Your task to perform on an android device: change keyboard looks Image 0: 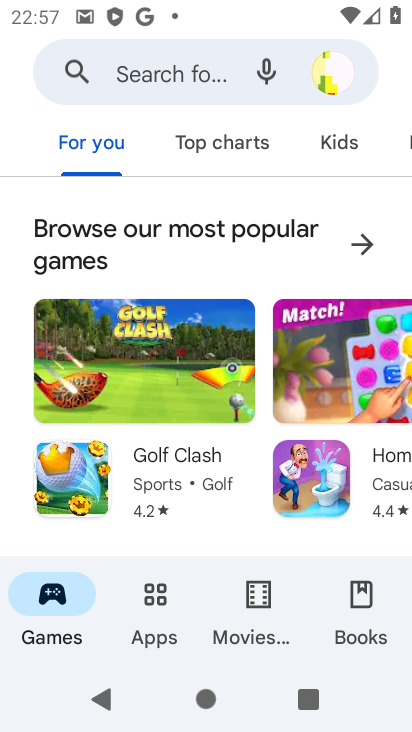
Step 0: press home button
Your task to perform on an android device: change keyboard looks Image 1: 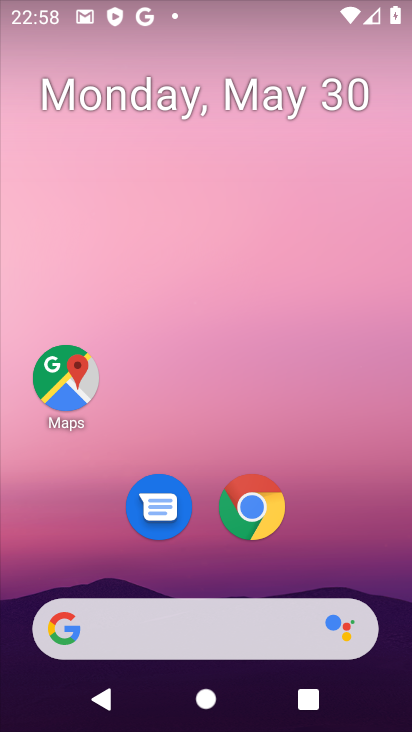
Step 1: drag from (359, 545) to (359, 234)
Your task to perform on an android device: change keyboard looks Image 2: 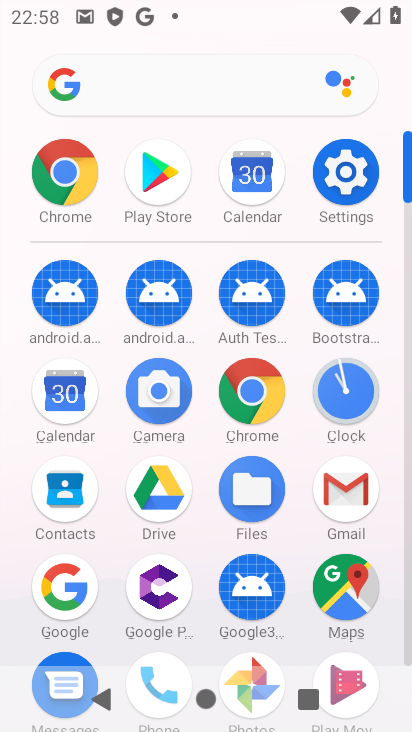
Step 2: click (354, 182)
Your task to perform on an android device: change keyboard looks Image 3: 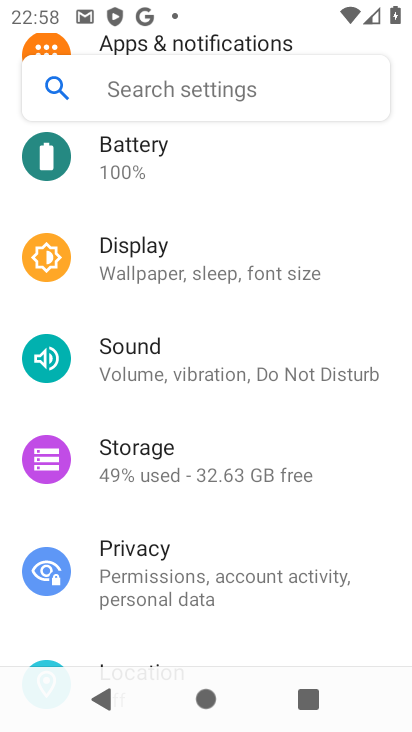
Step 3: drag from (374, 251) to (374, 388)
Your task to perform on an android device: change keyboard looks Image 4: 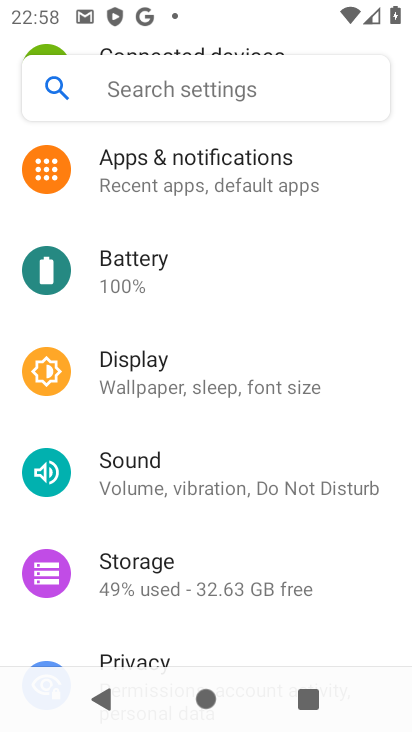
Step 4: drag from (355, 180) to (365, 346)
Your task to perform on an android device: change keyboard looks Image 5: 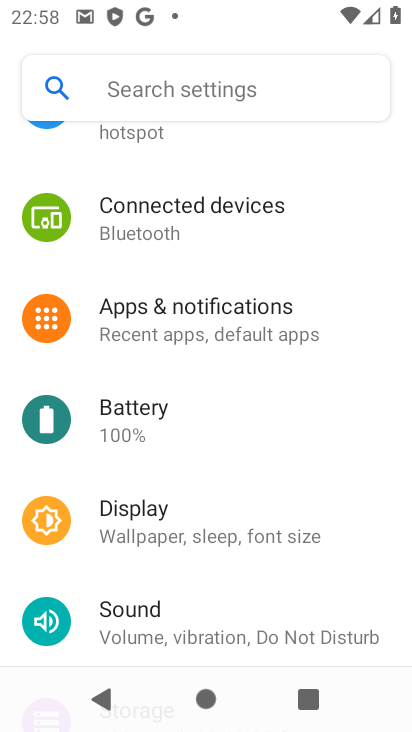
Step 5: drag from (357, 227) to (358, 389)
Your task to perform on an android device: change keyboard looks Image 6: 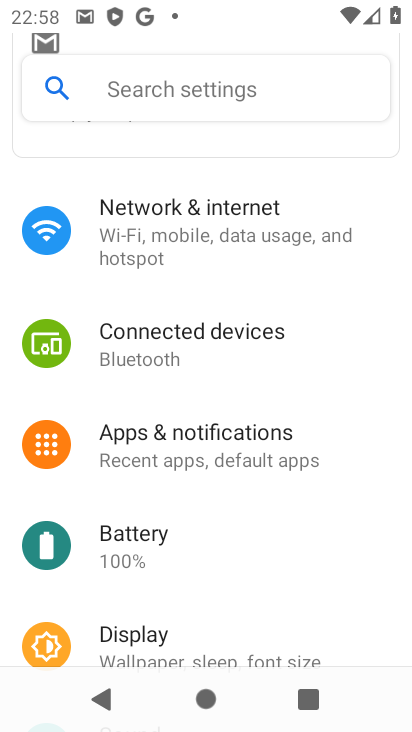
Step 6: drag from (352, 473) to (348, 230)
Your task to perform on an android device: change keyboard looks Image 7: 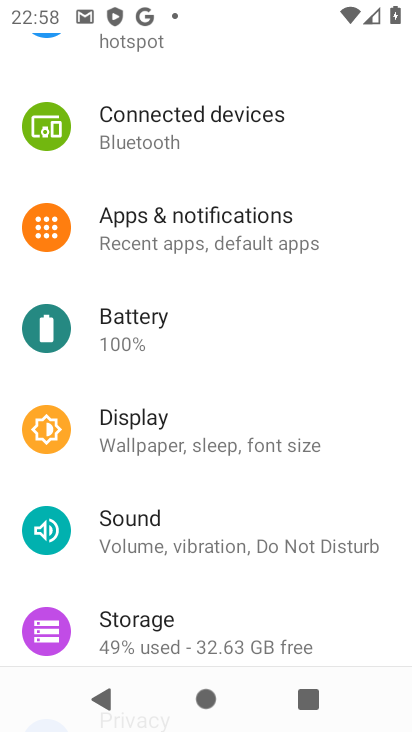
Step 7: drag from (330, 558) to (347, 407)
Your task to perform on an android device: change keyboard looks Image 8: 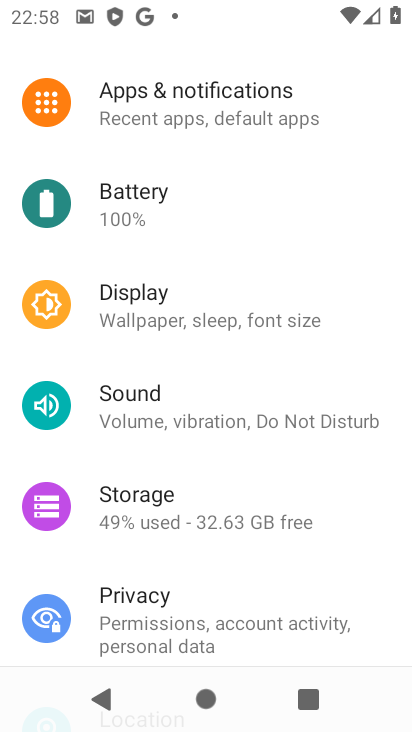
Step 8: drag from (345, 564) to (347, 400)
Your task to perform on an android device: change keyboard looks Image 9: 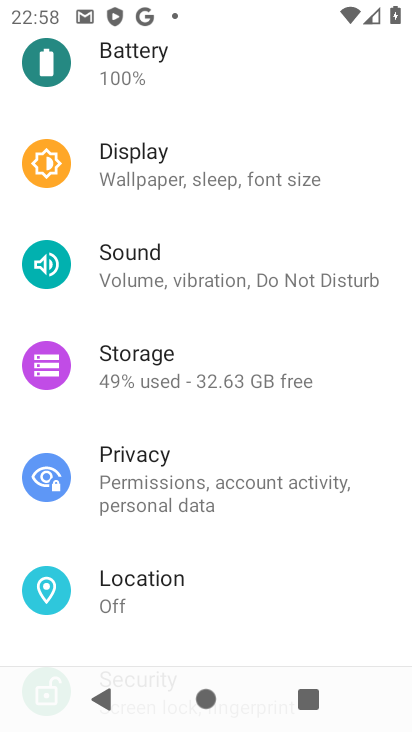
Step 9: drag from (325, 554) to (333, 362)
Your task to perform on an android device: change keyboard looks Image 10: 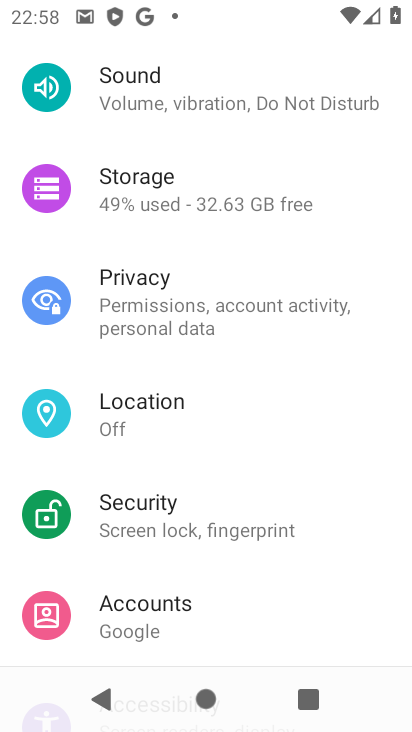
Step 10: drag from (336, 541) to (337, 410)
Your task to perform on an android device: change keyboard looks Image 11: 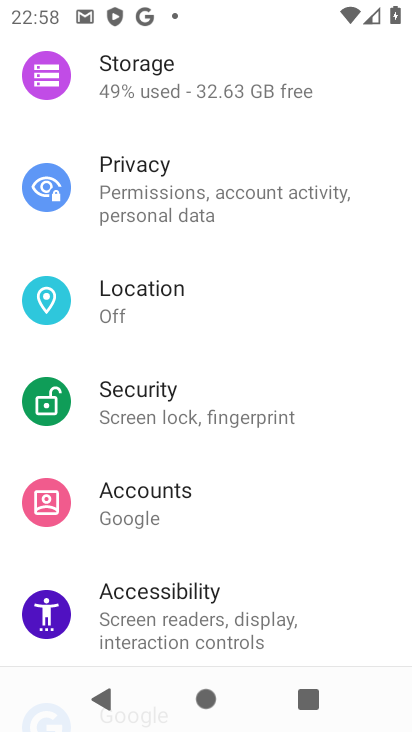
Step 11: drag from (349, 569) to (360, 314)
Your task to perform on an android device: change keyboard looks Image 12: 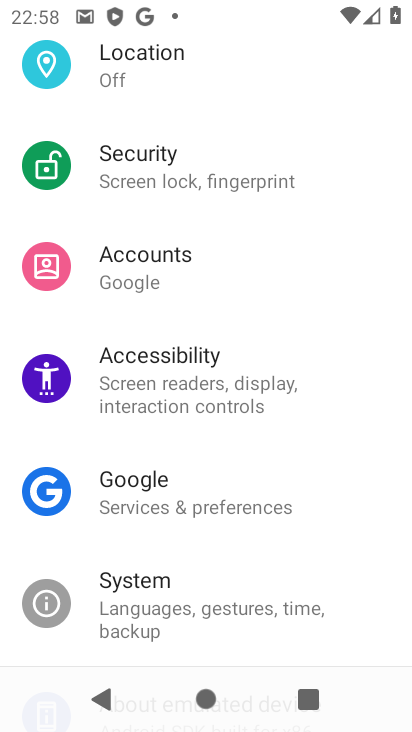
Step 12: drag from (339, 571) to (349, 409)
Your task to perform on an android device: change keyboard looks Image 13: 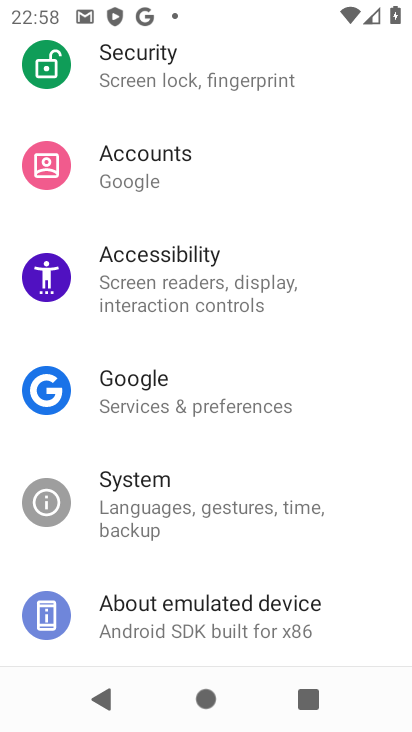
Step 13: click (291, 506)
Your task to perform on an android device: change keyboard looks Image 14: 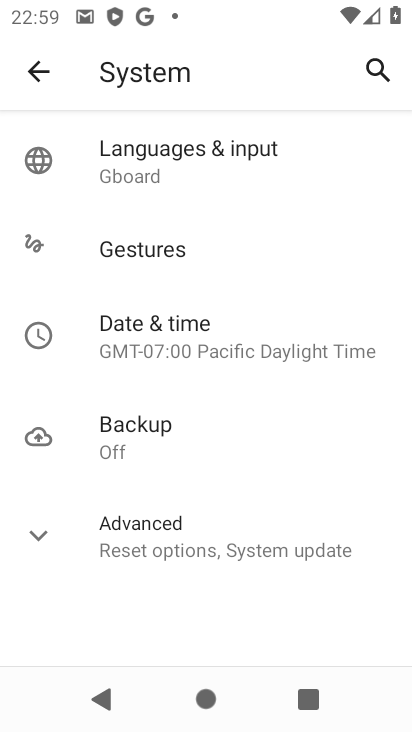
Step 14: click (167, 158)
Your task to perform on an android device: change keyboard looks Image 15: 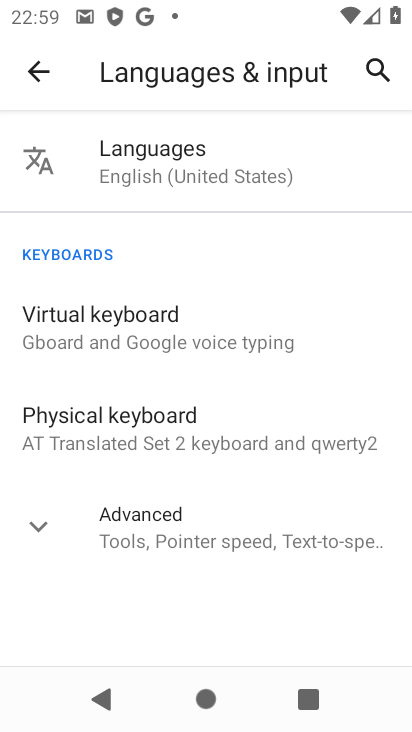
Step 15: click (176, 333)
Your task to perform on an android device: change keyboard looks Image 16: 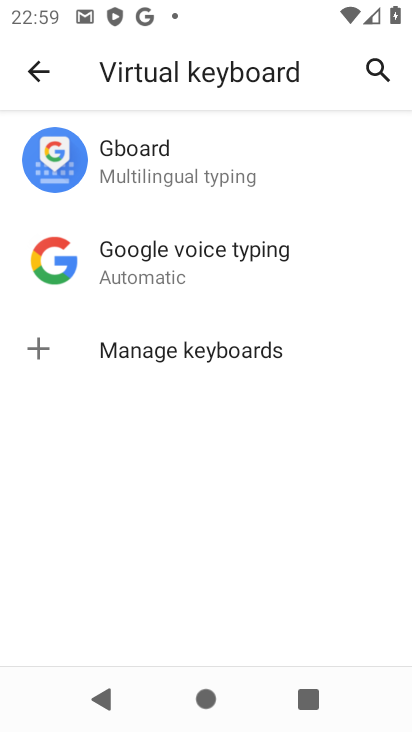
Step 16: click (188, 186)
Your task to perform on an android device: change keyboard looks Image 17: 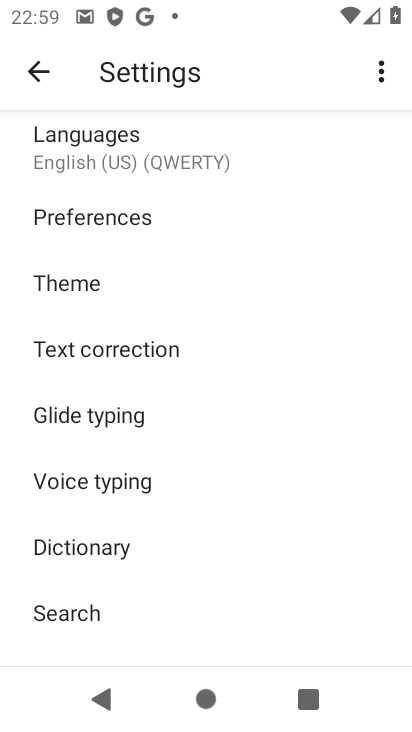
Step 17: drag from (309, 333) to (300, 424)
Your task to perform on an android device: change keyboard looks Image 18: 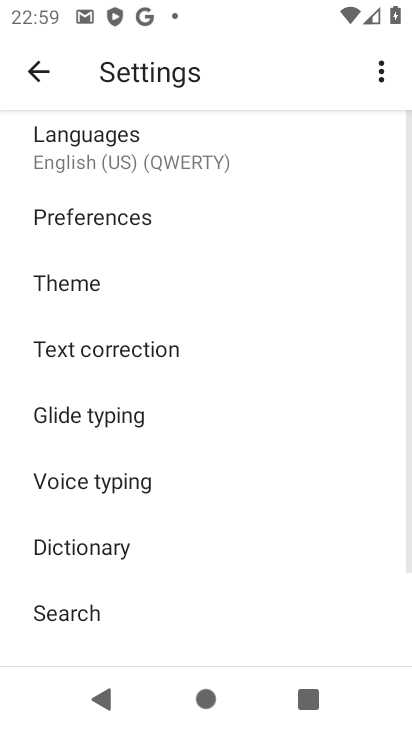
Step 18: click (91, 280)
Your task to perform on an android device: change keyboard looks Image 19: 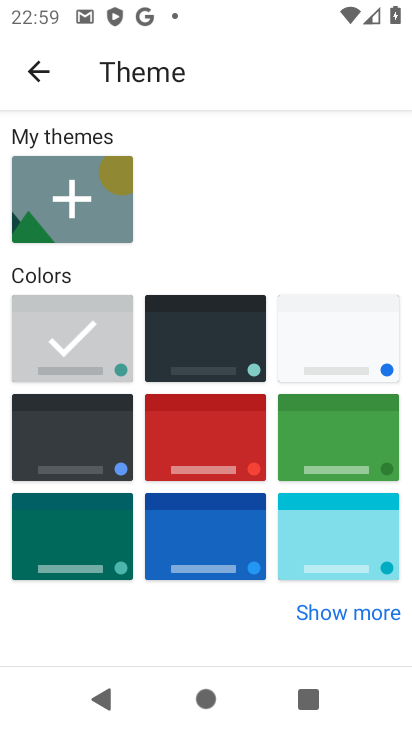
Step 19: click (219, 445)
Your task to perform on an android device: change keyboard looks Image 20: 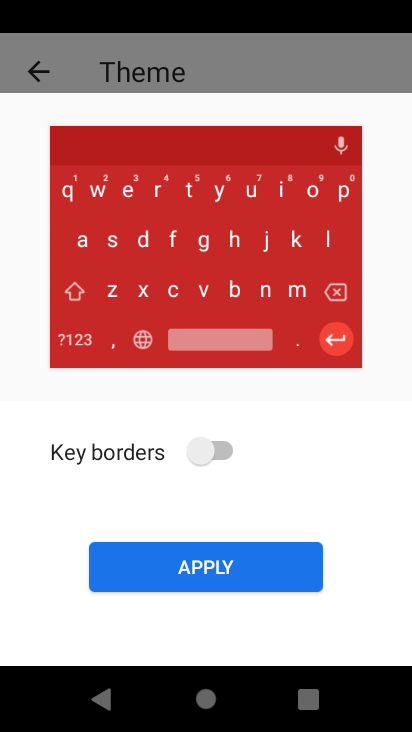
Step 20: click (243, 579)
Your task to perform on an android device: change keyboard looks Image 21: 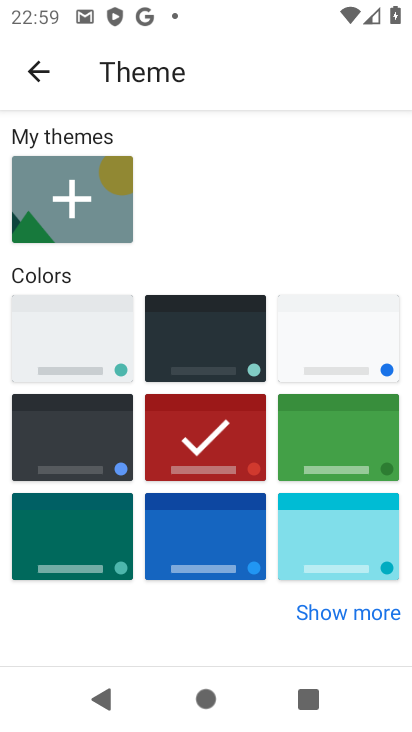
Step 21: task complete